Your task to perform on an android device: turn off translation in the chrome app Image 0: 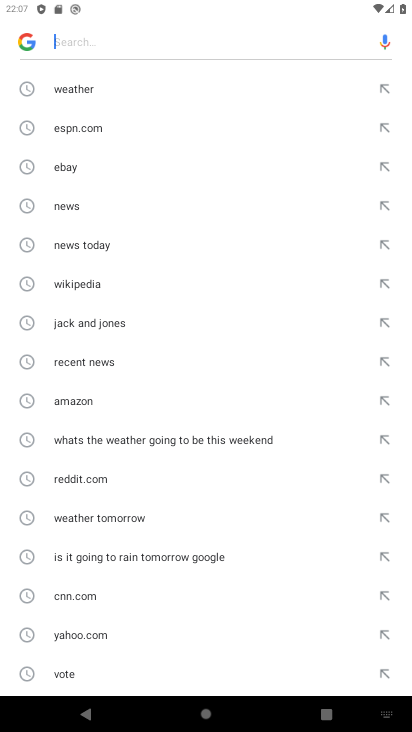
Step 0: press home button
Your task to perform on an android device: turn off translation in the chrome app Image 1: 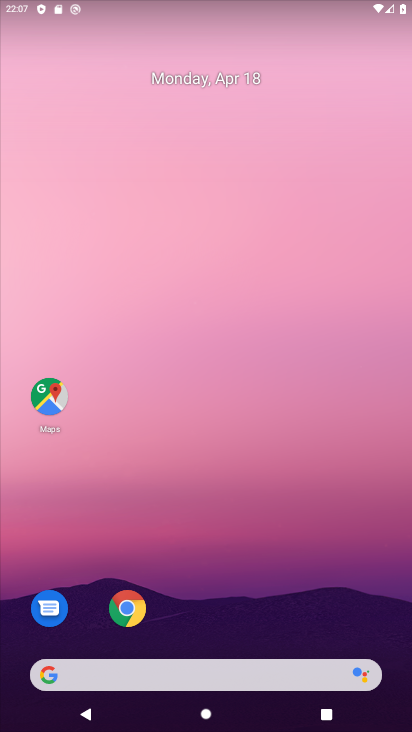
Step 1: click (130, 608)
Your task to perform on an android device: turn off translation in the chrome app Image 2: 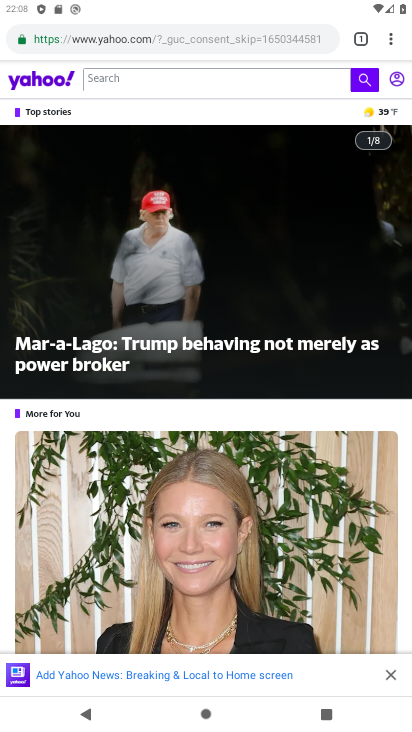
Step 2: click (389, 38)
Your task to perform on an android device: turn off translation in the chrome app Image 3: 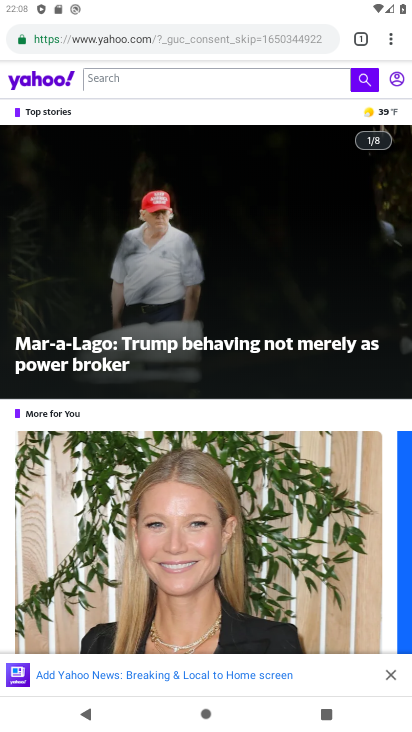
Step 3: click (391, 39)
Your task to perform on an android device: turn off translation in the chrome app Image 4: 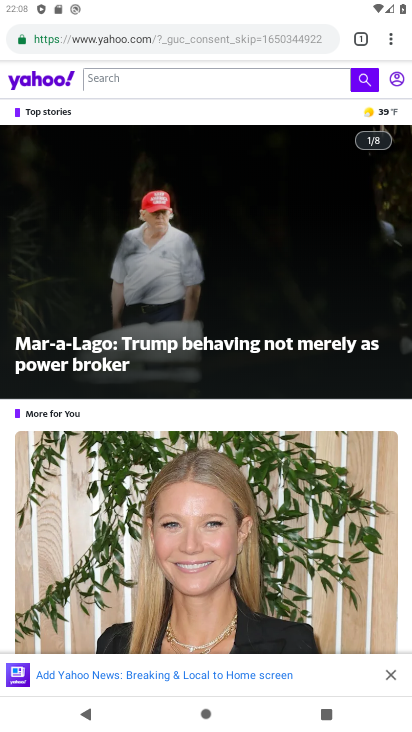
Step 4: click (387, 38)
Your task to perform on an android device: turn off translation in the chrome app Image 5: 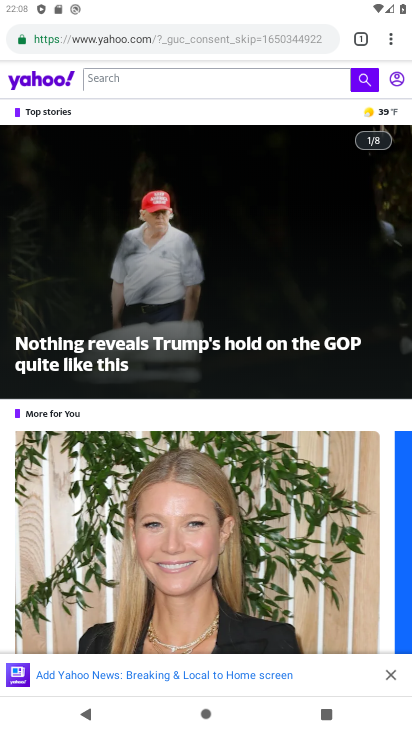
Step 5: click (400, 35)
Your task to perform on an android device: turn off translation in the chrome app Image 6: 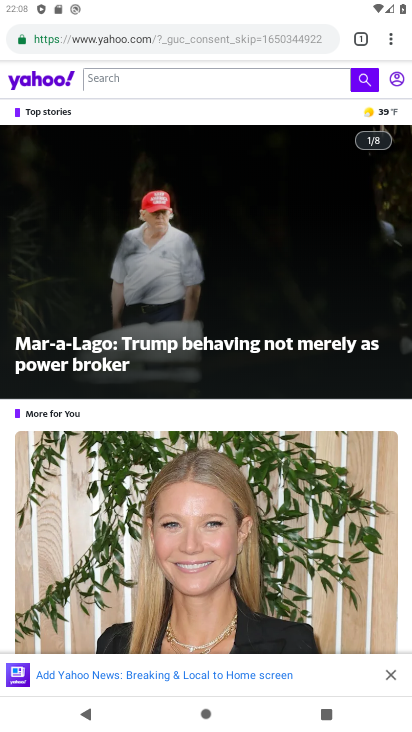
Step 6: click (395, 35)
Your task to perform on an android device: turn off translation in the chrome app Image 7: 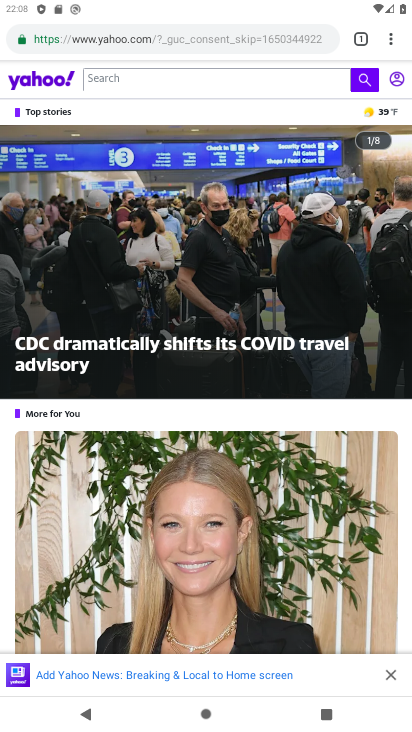
Step 7: click (390, 36)
Your task to perform on an android device: turn off translation in the chrome app Image 8: 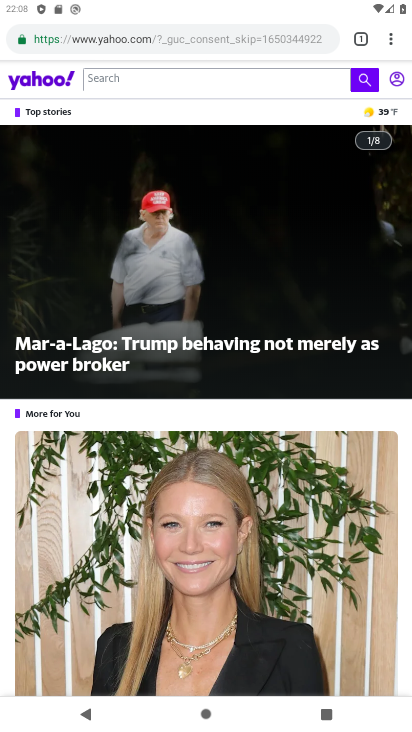
Step 8: drag from (390, 36) to (304, 508)
Your task to perform on an android device: turn off translation in the chrome app Image 9: 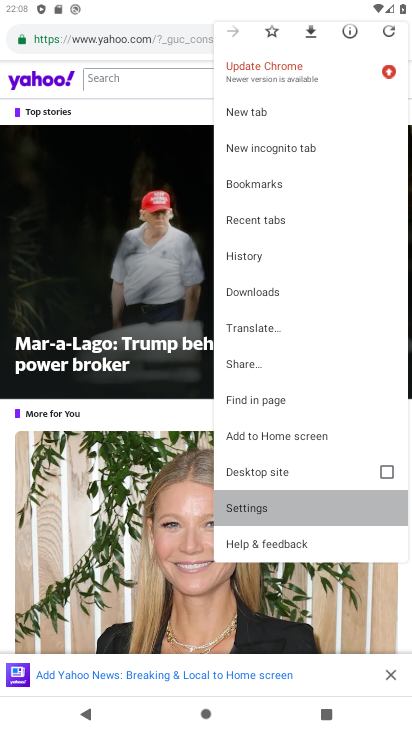
Step 9: click (276, 505)
Your task to perform on an android device: turn off translation in the chrome app Image 10: 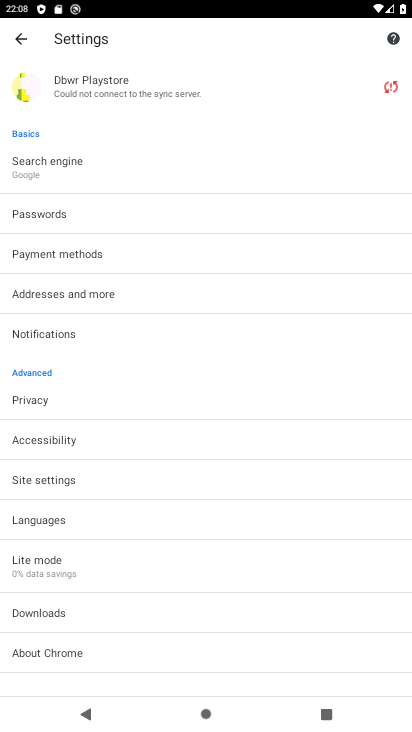
Step 10: drag from (200, 530) to (165, 137)
Your task to perform on an android device: turn off translation in the chrome app Image 11: 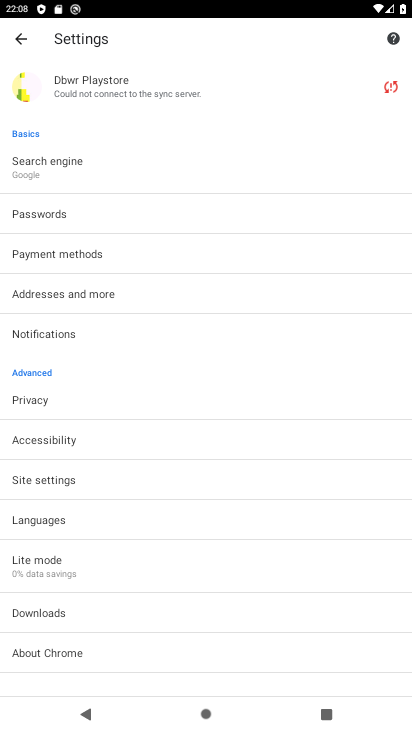
Step 11: click (58, 523)
Your task to perform on an android device: turn off translation in the chrome app Image 12: 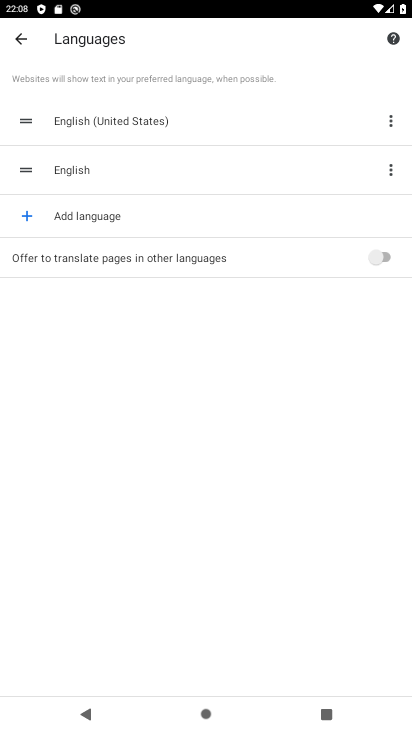
Step 12: task complete